Your task to perform on an android device: change your default location settings in chrome Image 0: 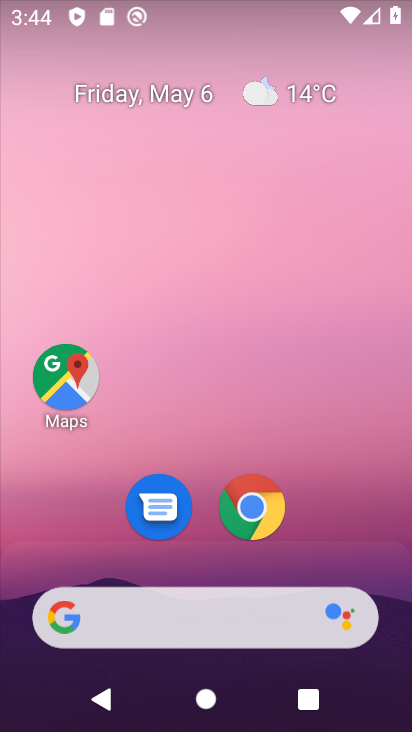
Step 0: drag from (364, 543) to (390, 111)
Your task to perform on an android device: change your default location settings in chrome Image 1: 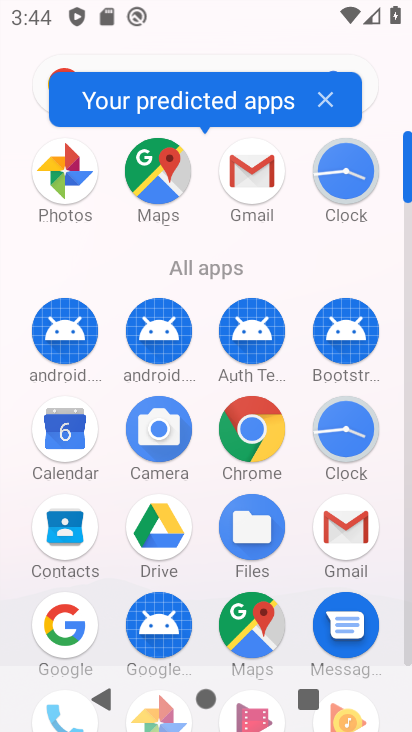
Step 1: click (409, 660)
Your task to perform on an android device: change your default location settings in chrome Image 2: 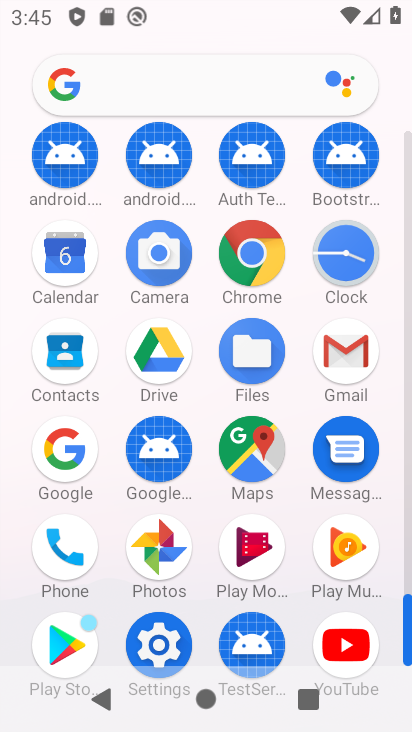
Step 2: click (264, 267)
Your task to perform on an android device: change your default location settings in chrome Image 3: 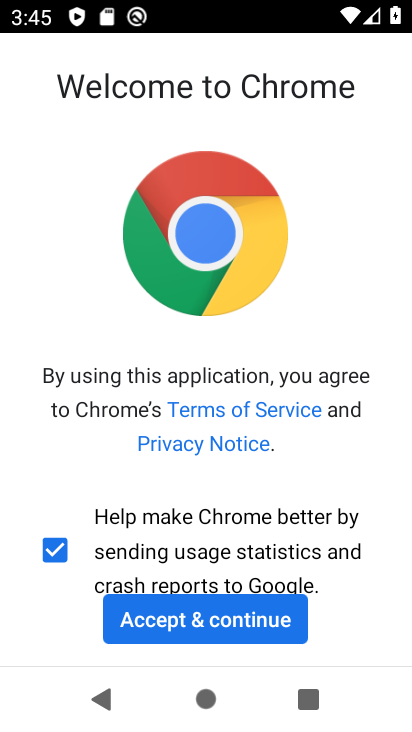
Step 3: click (272, 616)
Your task to perform on an android device: change your default location settings in chrome Image 4: 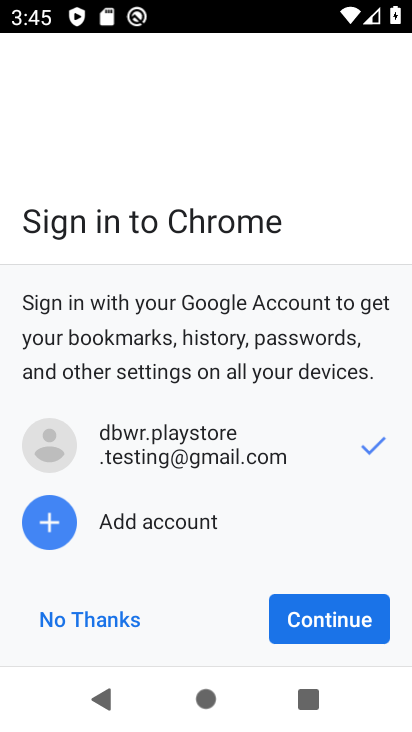
Step 4: click (300, 621)
Your task to perform on an android device: change your default location settings in chrome Image 5: 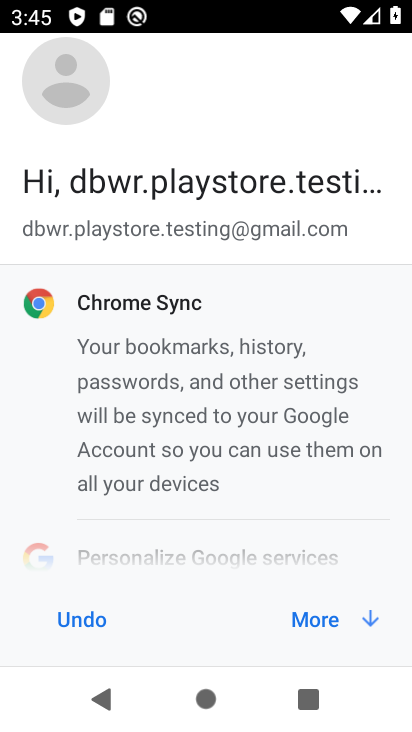
Step 5: click (300, 621)
Your task to perform on an android device: change your default location settings in chrome Image 6: 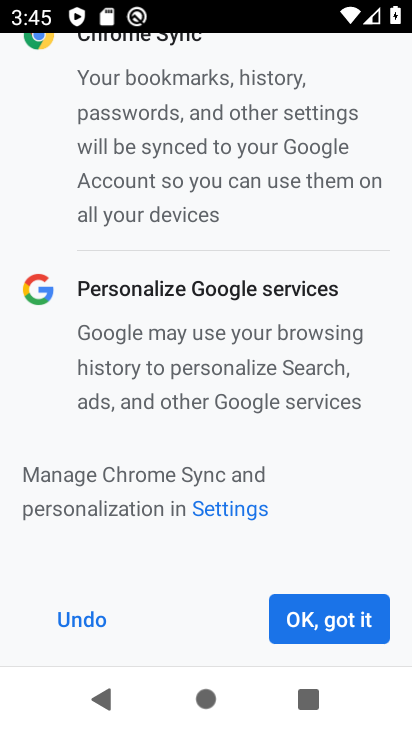
Step 6: click (300, 621)
Your task to perform on an android device: change your default location settings in chrome Image 7: 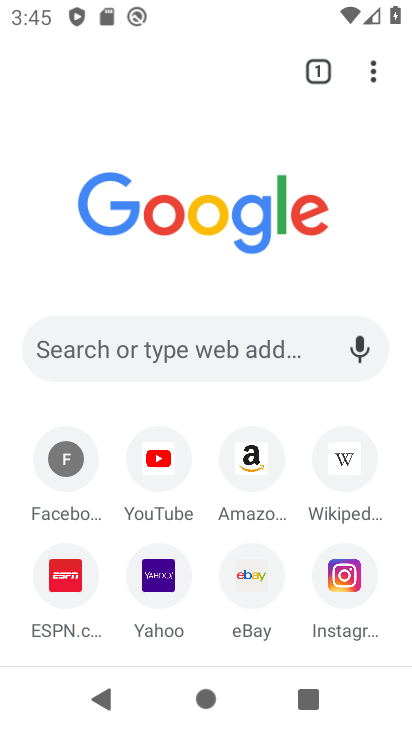
Step 7: click (376, 92)
Your task to perform on an android device: change your default location settings in chrome Image 8: 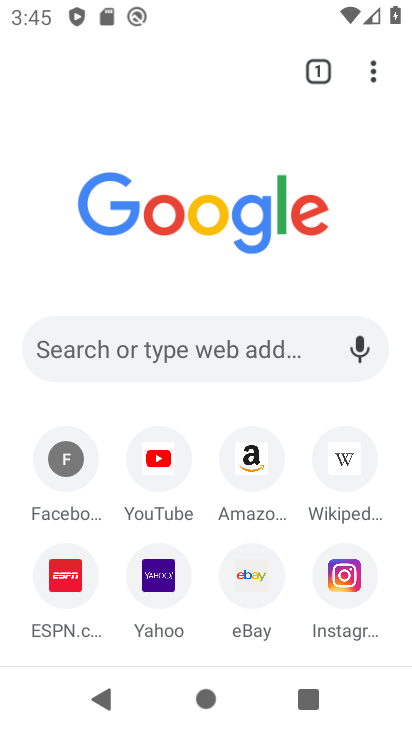
Step 8: drag from (376, 92) to (194, 508)
Your task to perform on an android device: change your default location settings in chrome Image 9: 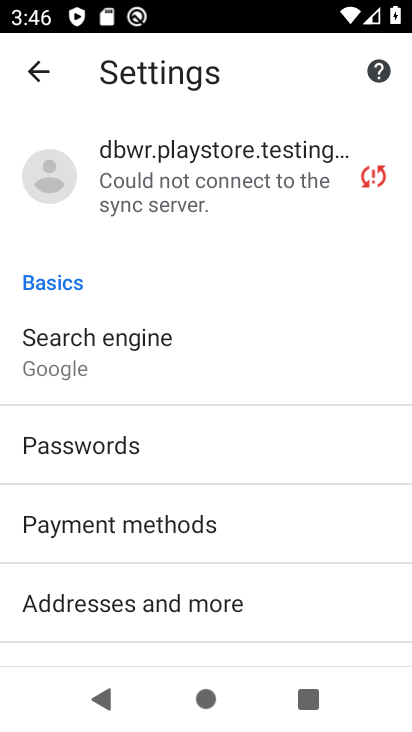
Step 9: drag from (276, 606) to (297, 191)
Your task to perform on an android device: change your default location settings in chrome Image 10: 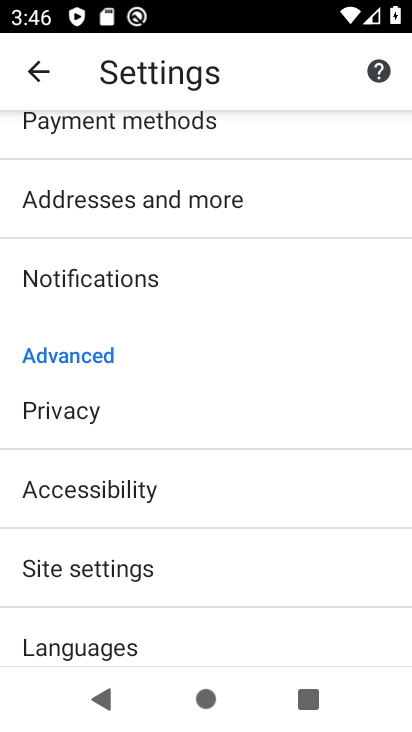
Step 10: click (279, 584)
Your task to perform on an android device: change your default location settings in chrome Image 11: 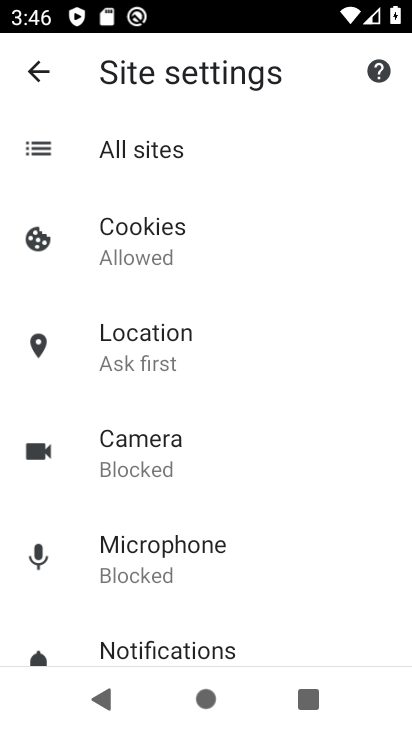
Step 11: click (254, 373)
Your task to perform on an android device: change your default location settings in chrome Image 12: 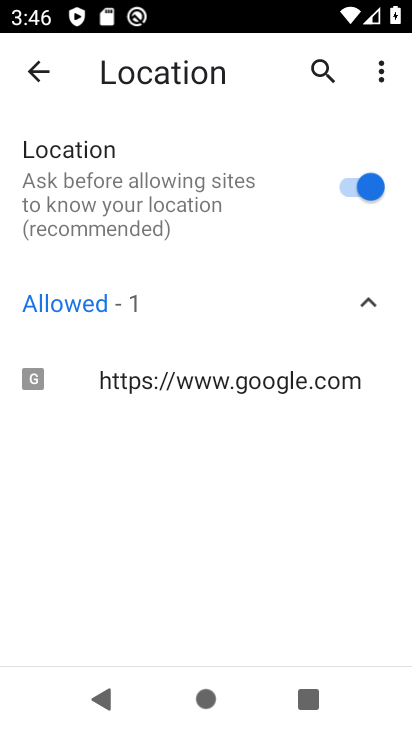
Step 12: task complete